Your task to perform on an android device: change the clock display to show seconds Image 0: 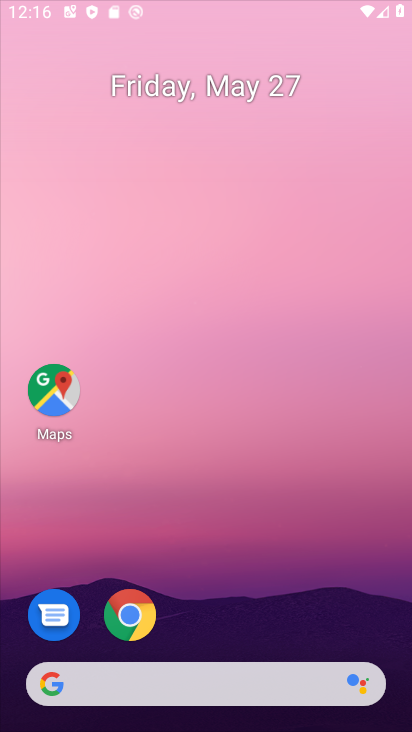
Step 0: click (306, 82)
Your task to perform on an android device: change the clock display to show seconds Image 1: 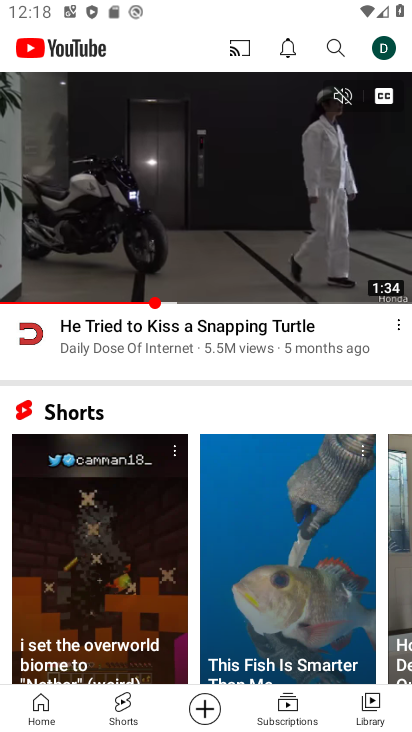
Step 1: press home button
Your task to perform on an android device: change the clock display to show seconds Image 2: 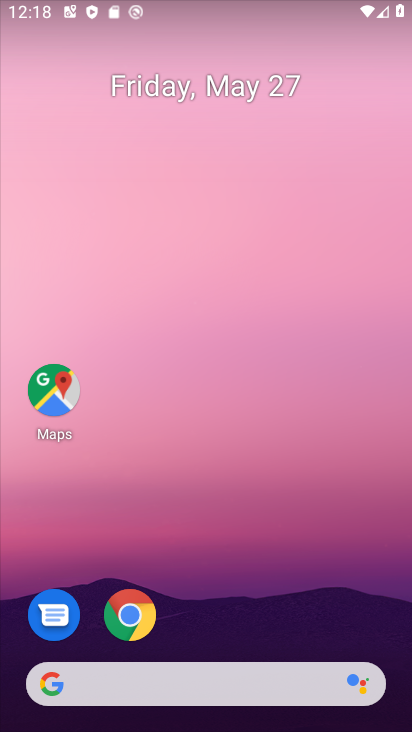
Step 2: drag from (275, 634) to (364, 10)
Your task to perform on an android device: change the clock display to show seconds Image 3: 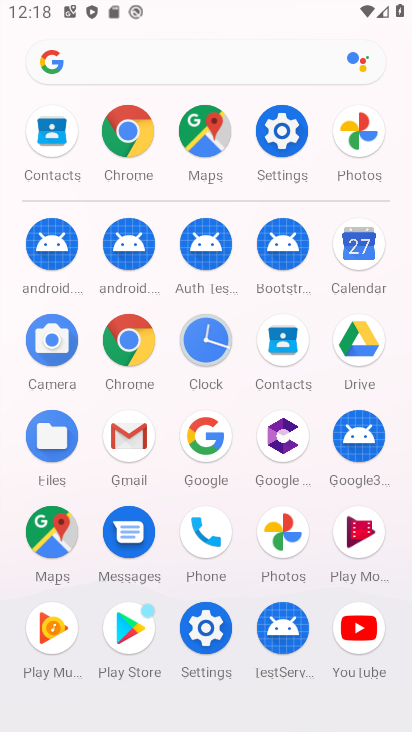
Step 3: click (209, 328)
Your task to perform on an android device: change the clock display to show seconds Image 4: 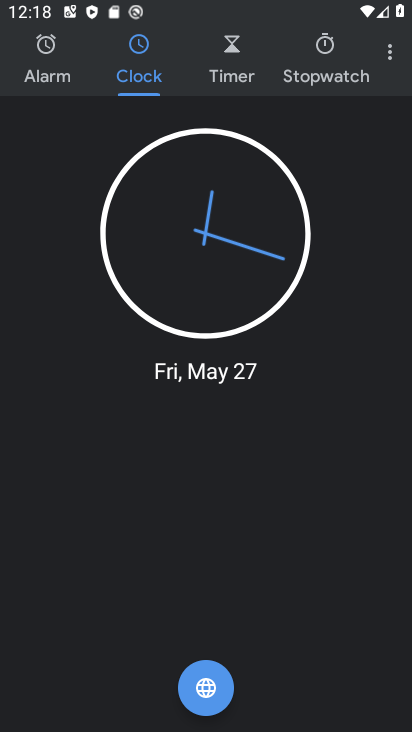
Step 4: click (379, 54)
Your task to perform on an android device: change the clock display to show seconds Image 5: 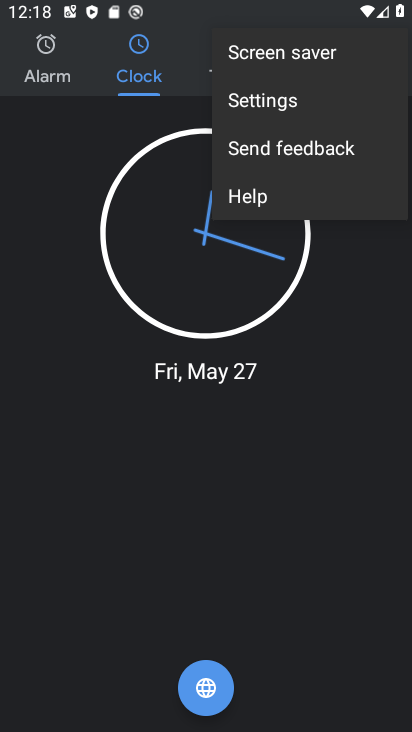
Step 5: click (286, 95)
Your task to perform on an android device: change the clock display to show seconds Image 6: 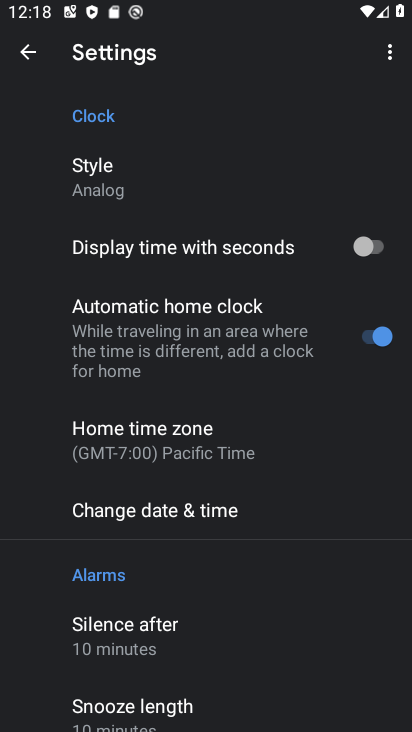
Step 6: click (370, 246)
Your task to perform on an android device: change the clock display to show seconds Image 7: 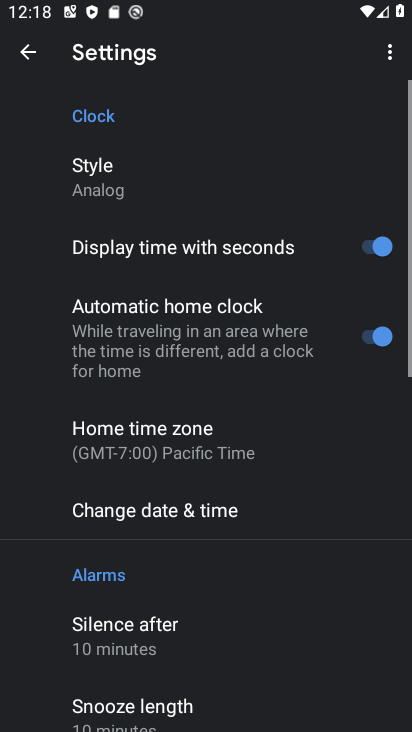
Step 7: task complete